Your task to perform on an android device: Is it going to rain today? Image 0: 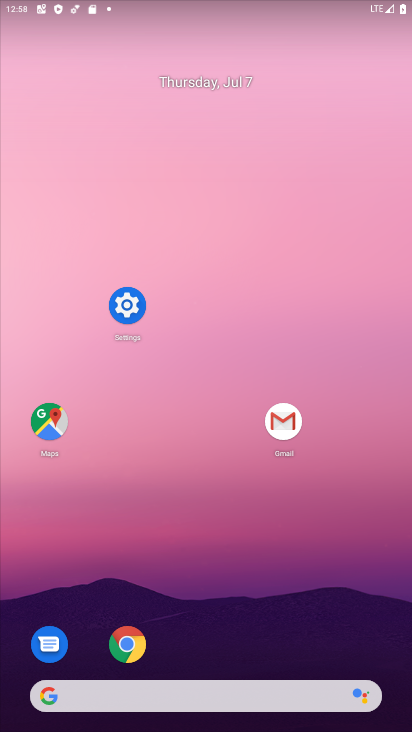
Step 0: drag from (80, 238) to (395, 289)
Your task to perform on an android device: Is it going to rain today? Image 1: 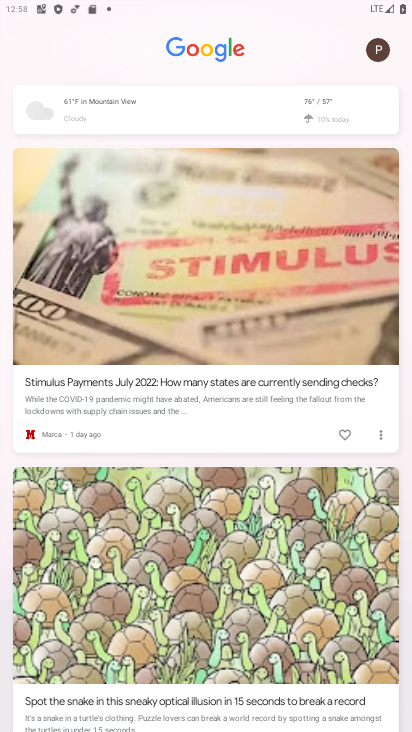
Step 1: click (257, 105)
Your task to perform on an android device: Is it going to rain today? Image 2: 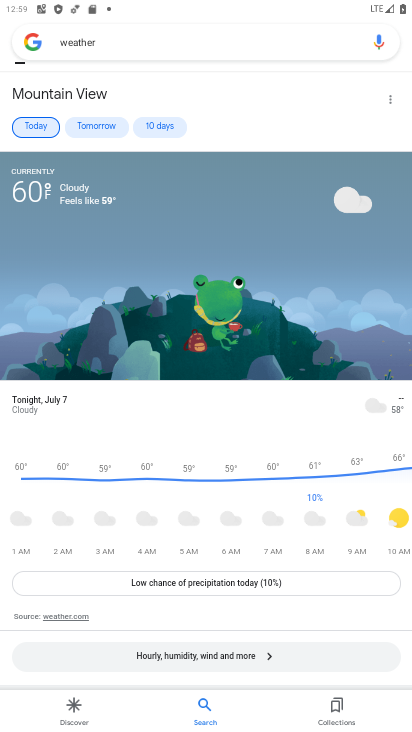
Step 2: click (25, 128)
Your task to perform on an android device: Is it going to rain today? Image 3: 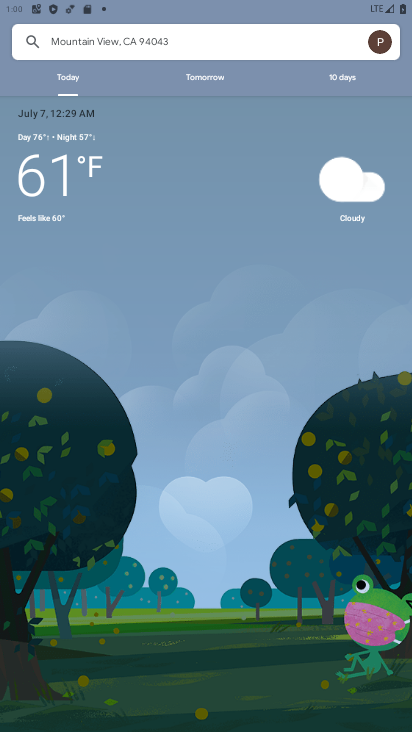
Step 3: task complete